Your task to perform on an android device: Is it going to rain tomorrow? Image 0: 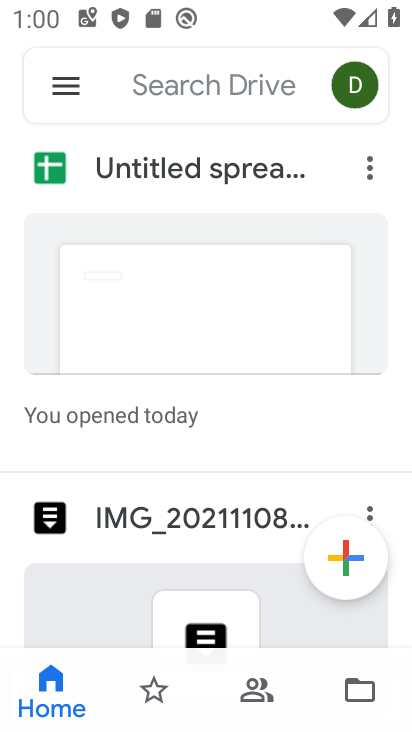
Step 0: press home button
Your task to perform on an android device: Is it going to rain tomorrow? Image 1: 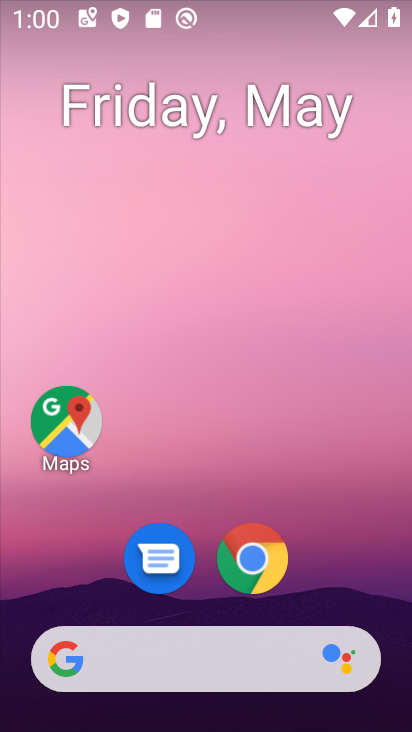
Step 1: drag from (327, 604) to (323, 248)
Your task to perform on an android device: Is it going to rain tomorrow? Image 2: 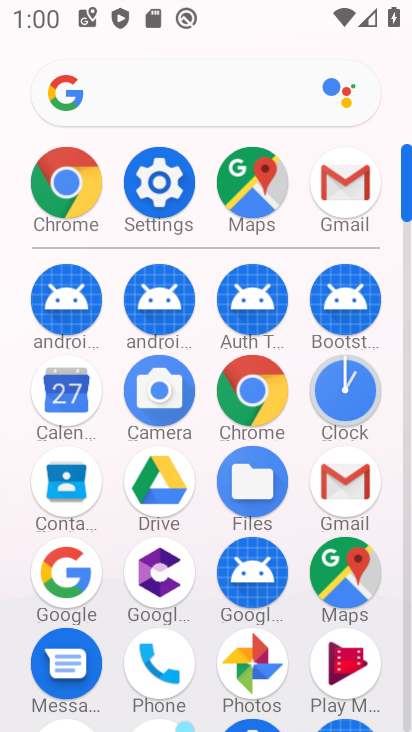
Step 2: click (49, 216)
Your task to perform on an android device: Is it going to rain tomorrow? Image 3: 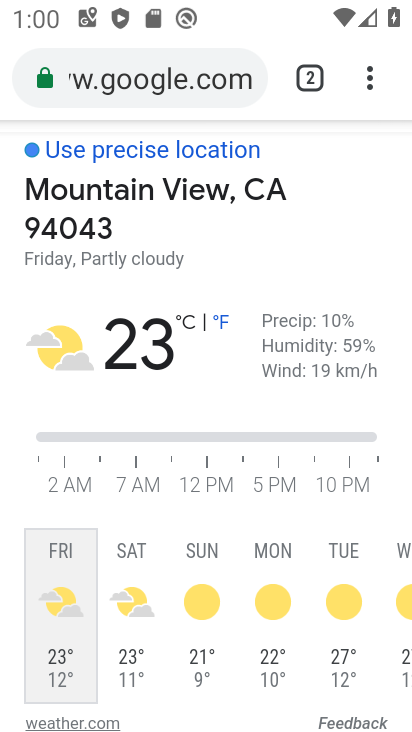
Step 3: click (149, 72)
Your task to perform on an android device: Is it going to rain tomorrow? Image 4: 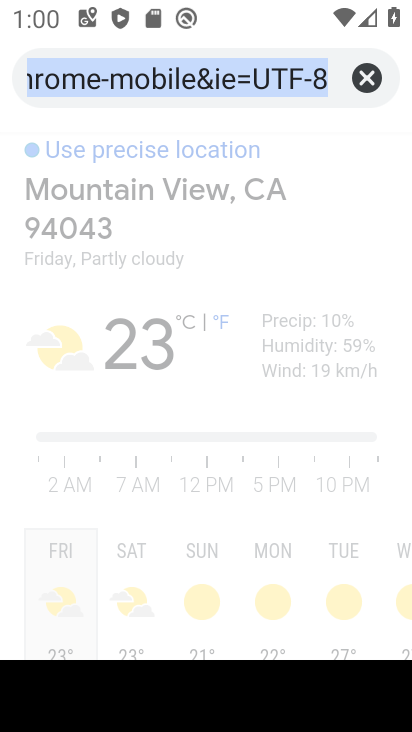
Step 4: type "Is it going to rain tomorrow?"
Your task to perform on an android device: Is it going to rain tomorrow? Image 5: 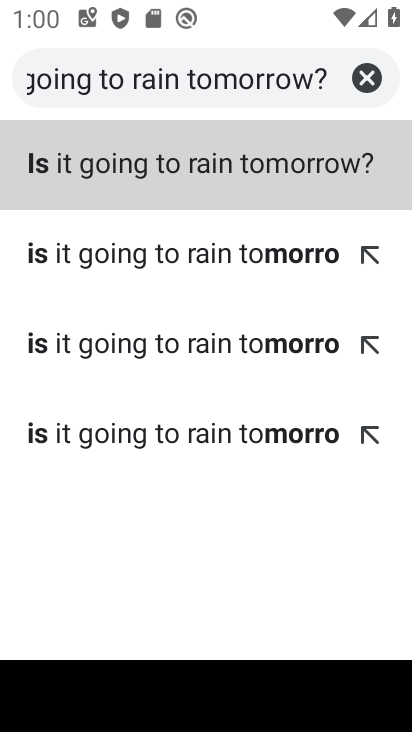
Step 5: click (305, 170)
Your task to perform on an android device: Is it going to rain tomorrow? Image 6: 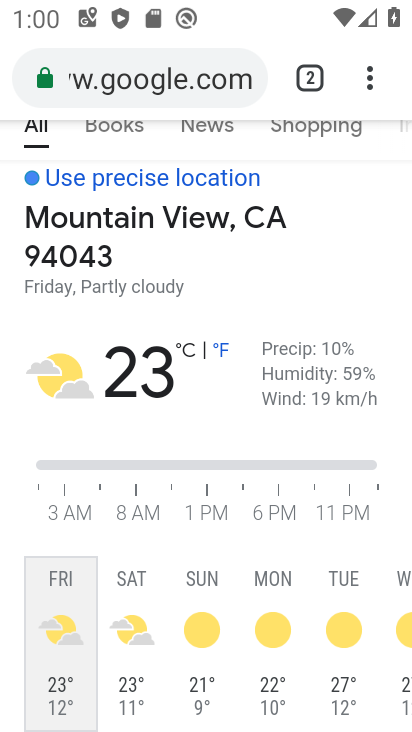
Step 6: click (132, 575)
Your task to perform on an android device: Is it going to rain tomorrow? Image 7: 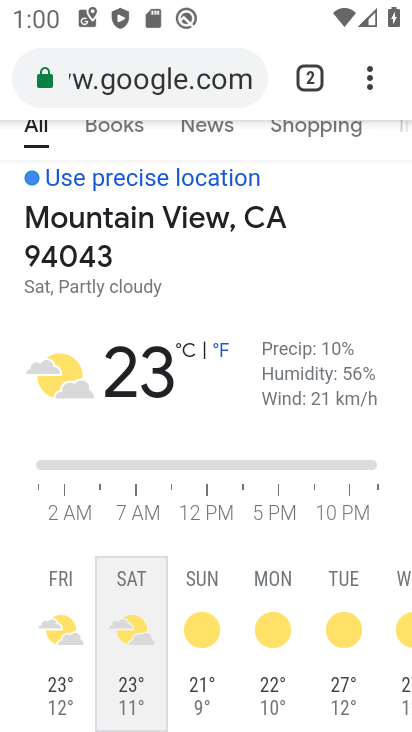
Step 7: task complete